Your task to perform on an android device: see sites visited before in the chrome app Image 0: 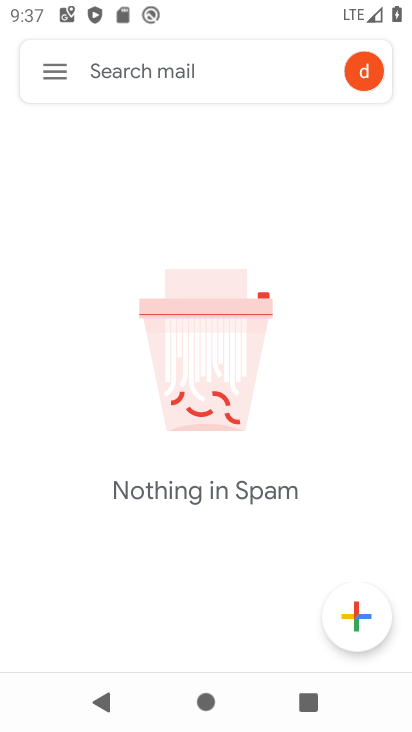
Step 0: press home button
Your task to perform on an android device: see sites visited before in the chrome app Image 1: 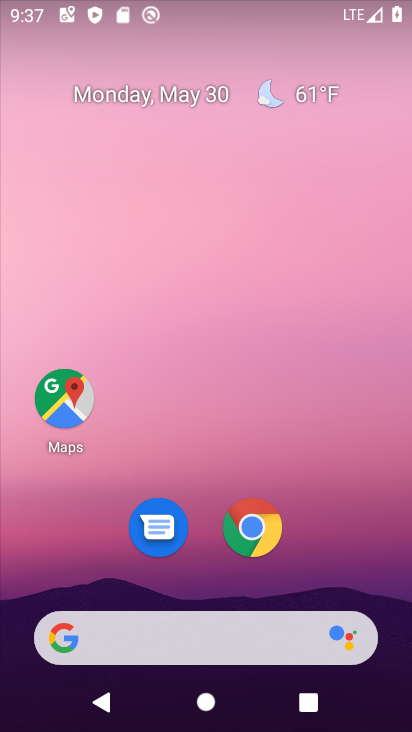
Step 1: click (254, 523)
Your task to perform on an android device: see sites visited before in the chrome app Image 2: 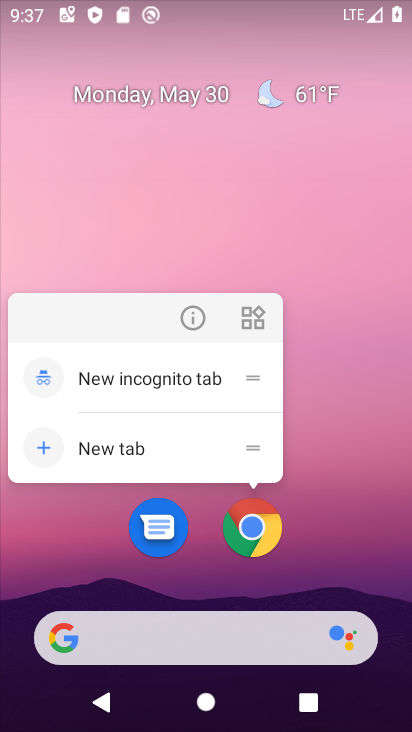
Step 2: click (259, 529)
Your task to perform on an android device: see sites visited before in the chrome app Image 3: 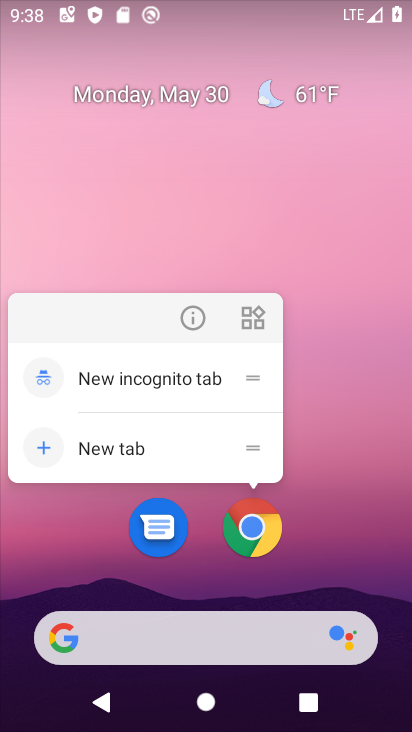
Step 3: click (259, 532)
Your task to perform on an android device: see sites visited before in the chrome app Image 4: 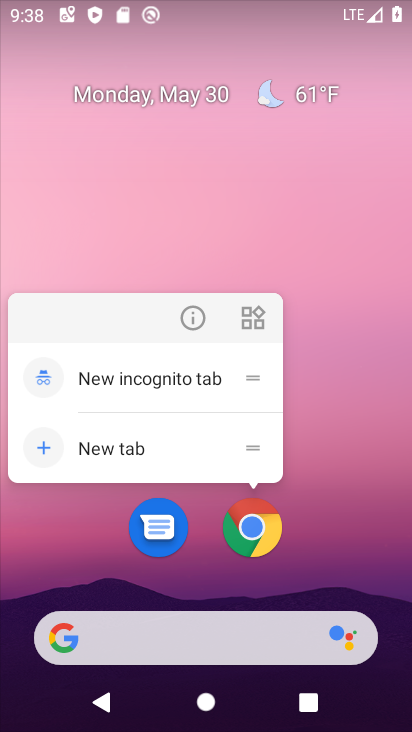
Step 4: click (257, 530)
Your task to perform on an android device: see sites visited before in the chrome app Image 5: 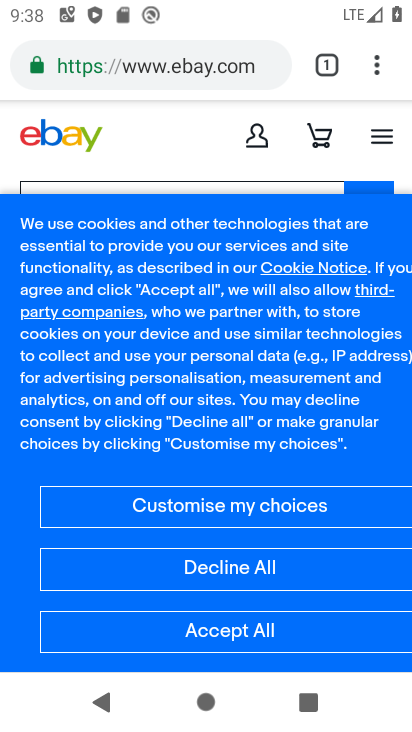
Step 5: click (373, 61)
Your task to perform on an android device: see sites visited before in the chrome app Image 6: 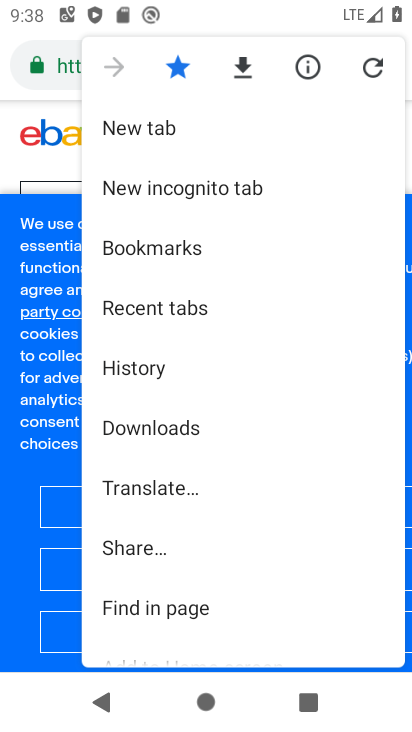
Step 6: click (150, 357)
Your task to perform on an android device: see sites visited before in the chrome app Image 7: 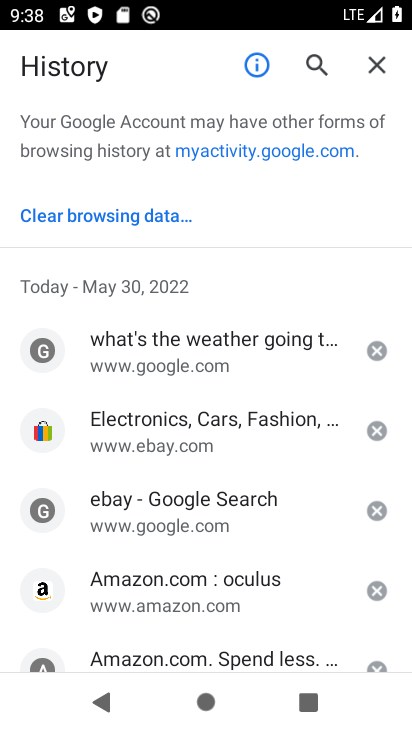
Step 7: task complete